Your task to perform on an android device: toggle notification dots Image 0: 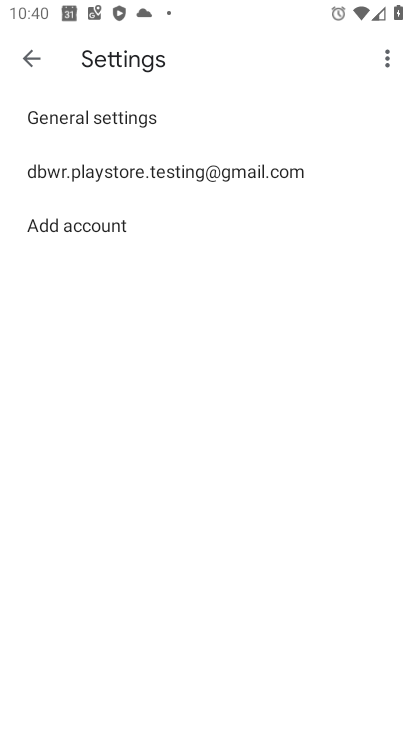
Step 0: press home button
Your task to perform on an android device: toggle notification dots Image 1: 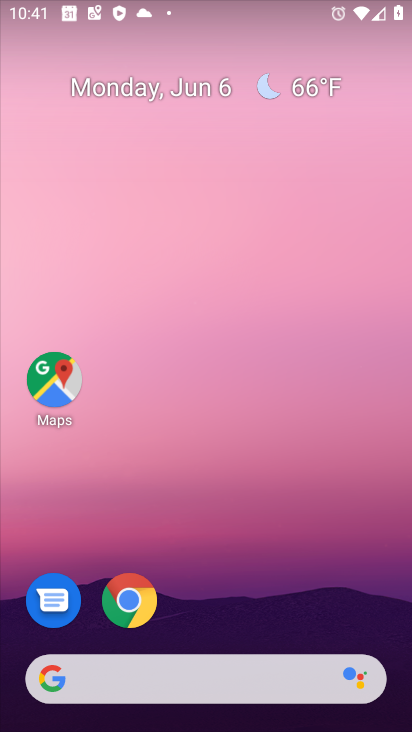
Step 1: drag from (11, 637) to (286, 201)
Your task to perform on an android device: toggle notification dots Image 2: 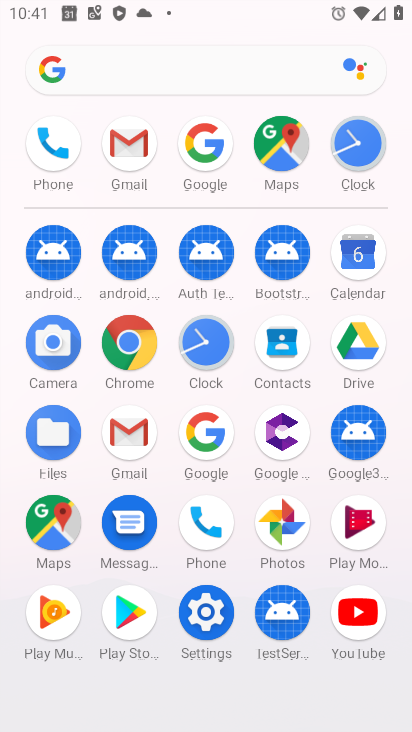
Step 2: click (212, 598)
Your task to perform on an android device: toggle notification dots Image 3: 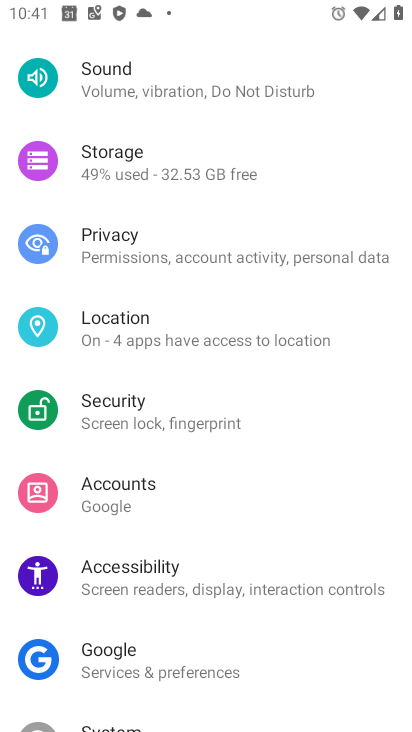
Step 3: drag from (228, 163) to (225, 548)
Your task to perform on an android device: toggle notification dots Image 4: 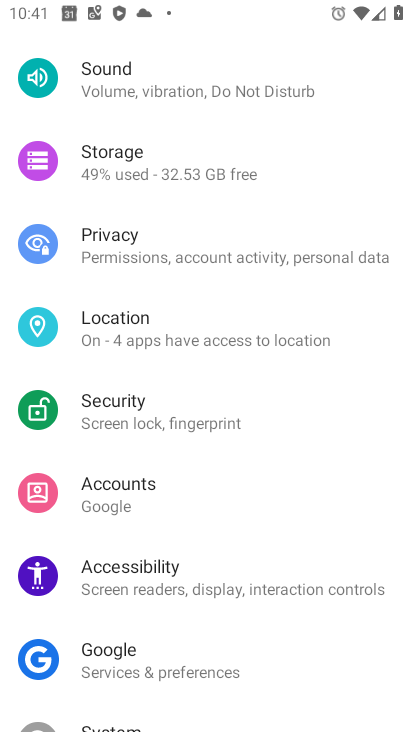
Step 4: drag from (84, 51) to (52, 630)
Your task to perform on an android device: toggle notification dots Image 5: 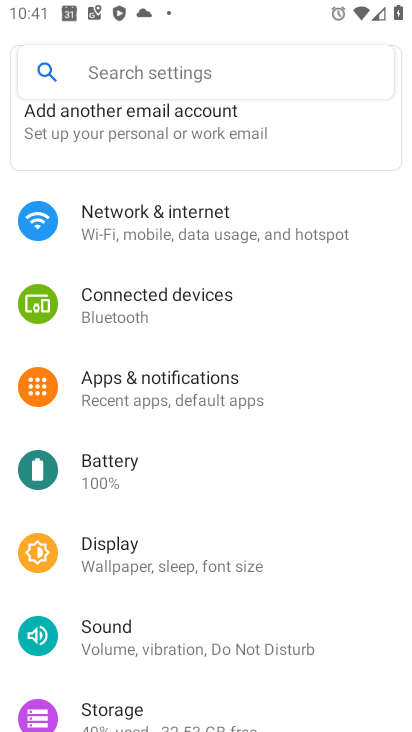
Step 5: click (161, 399)
Your task to perform on an android device: toggle notification dots Image 6: 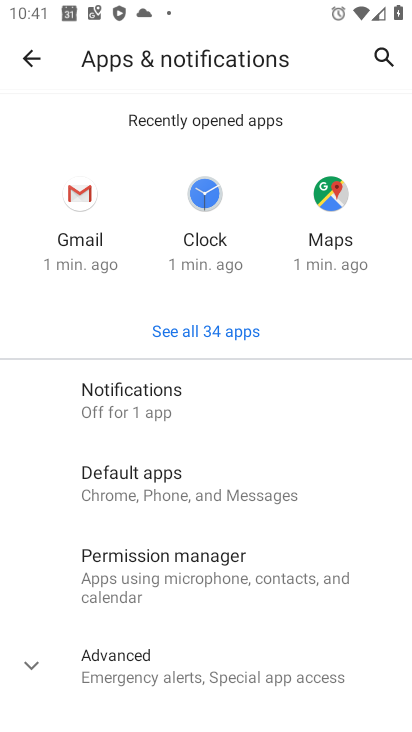
Step 6: drag from (0, 684) to (290, 145)
Your task to perform on an android device: toggle notification dots Image 7: 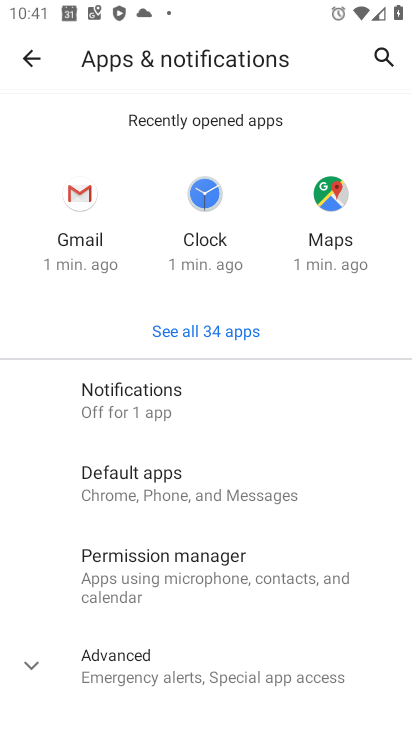
Step 7: drag from (26, 516) to (299, 112)
Your task to perform on an android device: toggle notification dots Image 8: 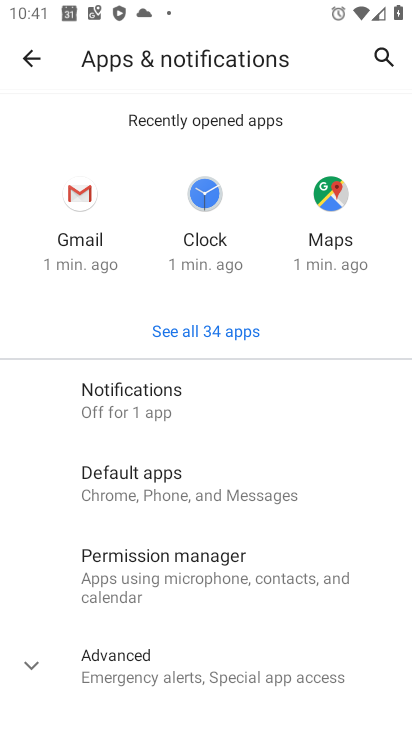
Step 8: click (202, 407)
Your task to perform on an android device: toggle notification dots Image 9: 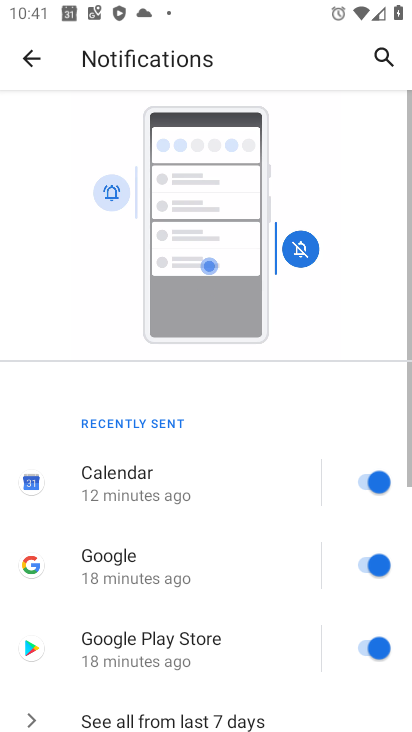
Step 9: drag from (17, 567) to (269, 130)
Your task to perform on an android device: toggle notification dots Image 10: 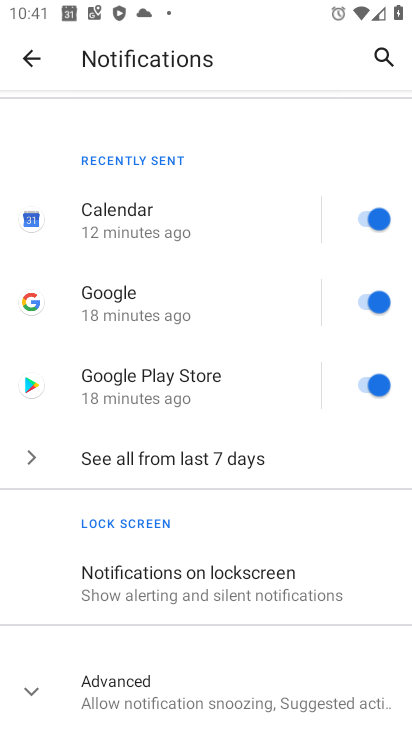
Step 10: click (187, 699)
Your task to perform on an android device: toggle notification dots Image 11: 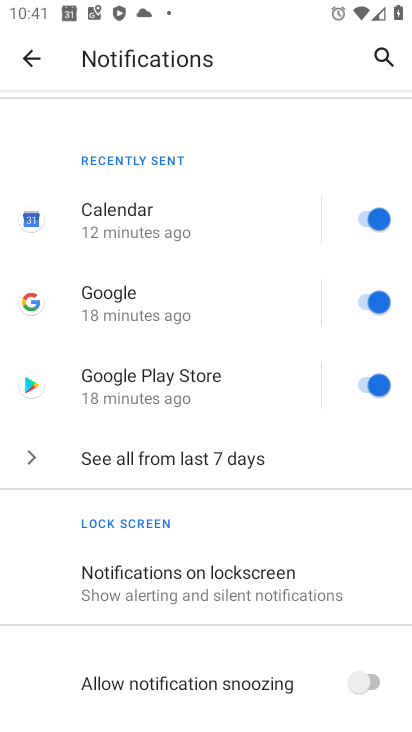
Step 11: drag from (17, 540) to (220, 189)
Your task to perform on an android device: toggle notification dots Image 12: 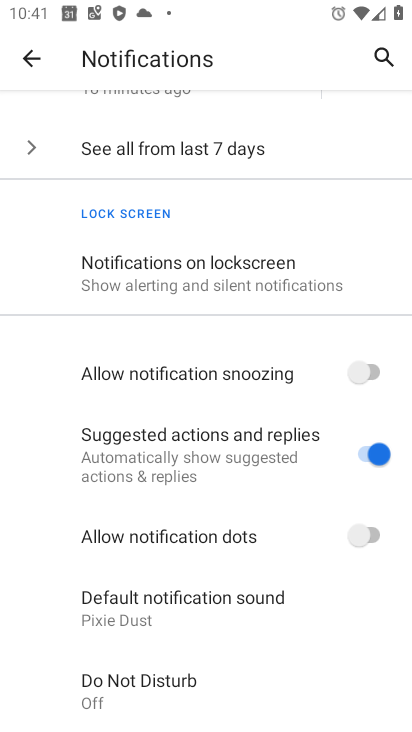
Step 12: click (354, 536)
Your task to perform on an android device: toggle notification dots Image 13: 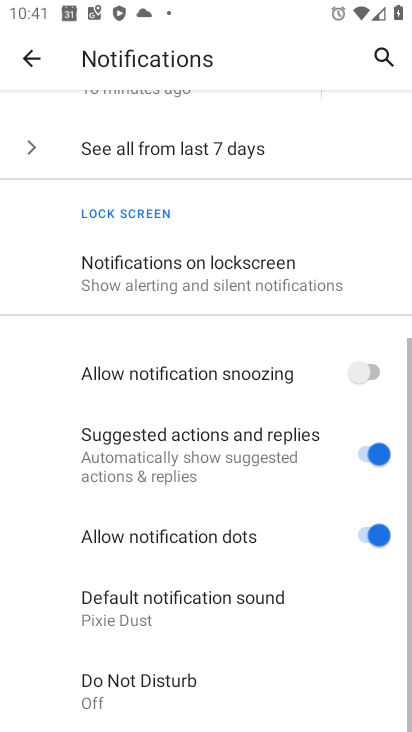
Step 13: task complete